Your task to perform on an android device: turn on priority inbox in the gmail app Image 0: 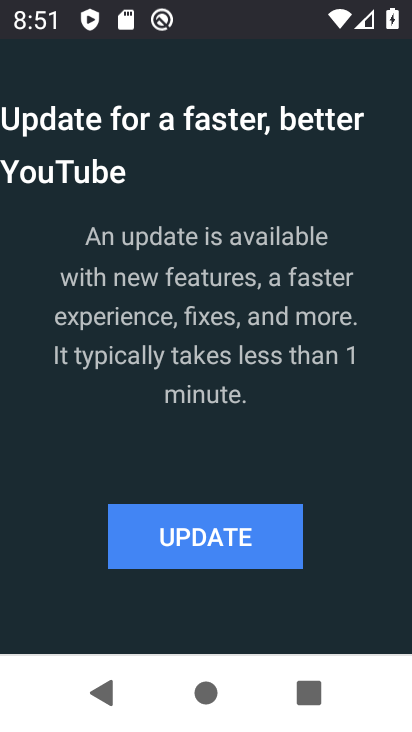
Step 0: press home button
Your task to perform on an android device: turn on priority inbox in the gmail app Image 1: 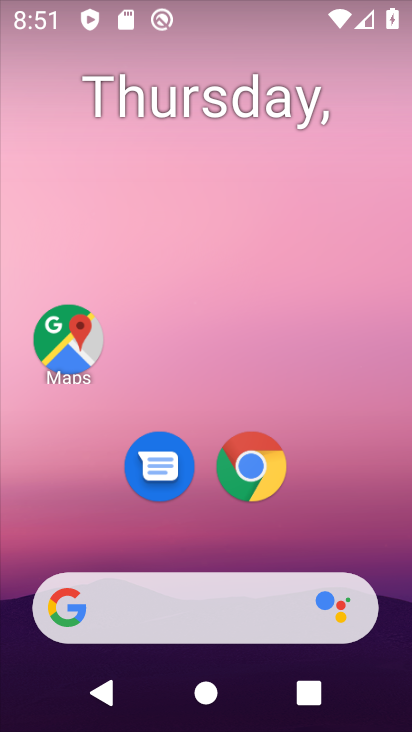
Step 1: drag from (185, 611) to (293, 181)
Your task to perform on an android device: turn on priority inbox in the gmail app Image 2: 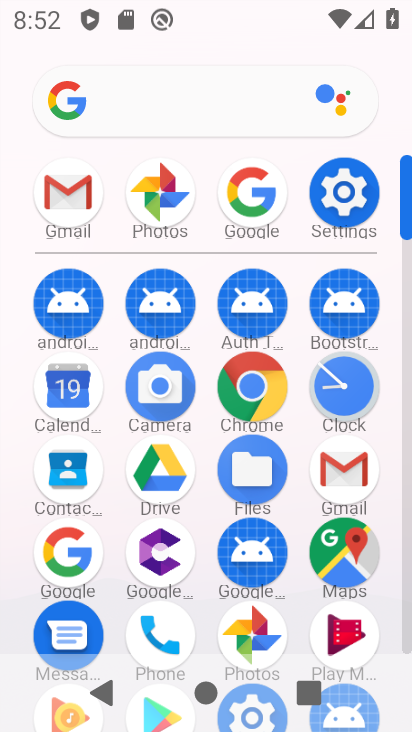
Step 2: click (54, 204)
Your task to perform on an android device: turn on priority inbox in the gmail app Image 3: 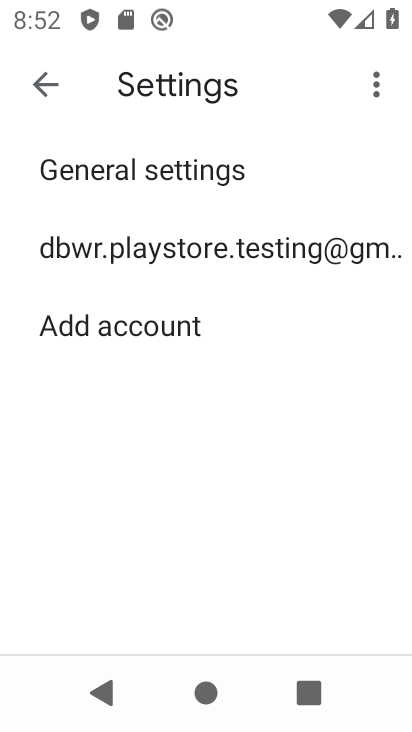
Step 3: click (148, 248)
Your task to perform on an android device: turn on priority inbox in the gmail app Image 4: 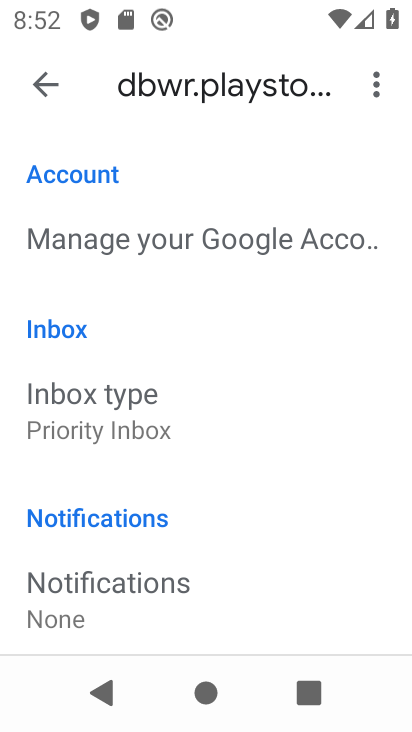
Step 4: click (96, 431)
Your task to perform on an android device: turn on priority inbox in the gmail app Image 5: 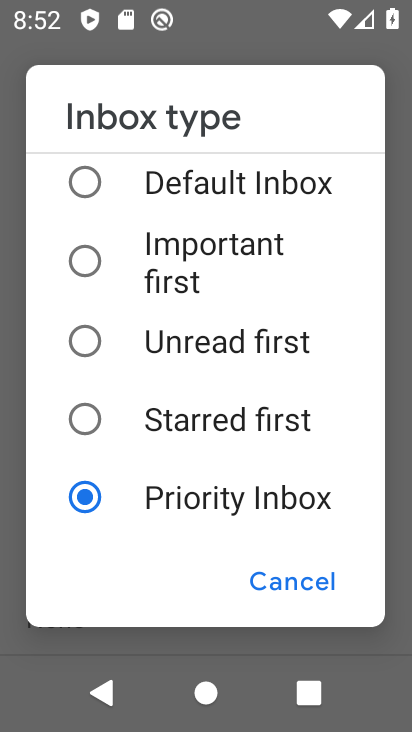
Step 5: task complete